Your task to perform on an android device: Go to battery settings Image 0: 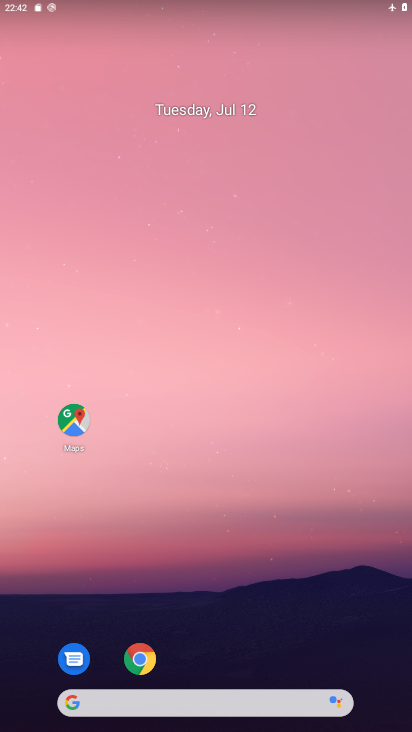
Step 0: drag from (164, 628) to (220, 276)
Your task to perform on an android device: Go to battery settings Image 1: 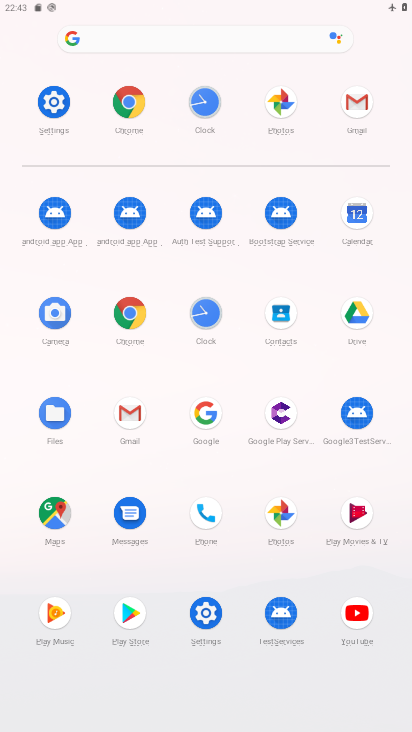
Step 1: click (43, 93)
Your task to perform on an android device: Go to battery settings Image 2: 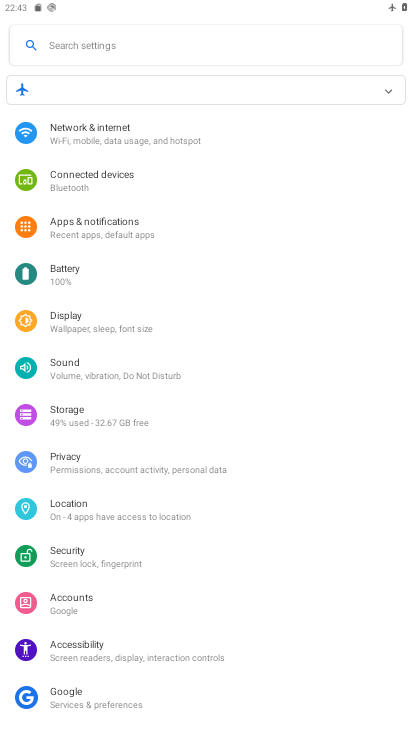
Step 2: click (55, 272)
Your task to perform on an android device: Go to battery settings Image 3: 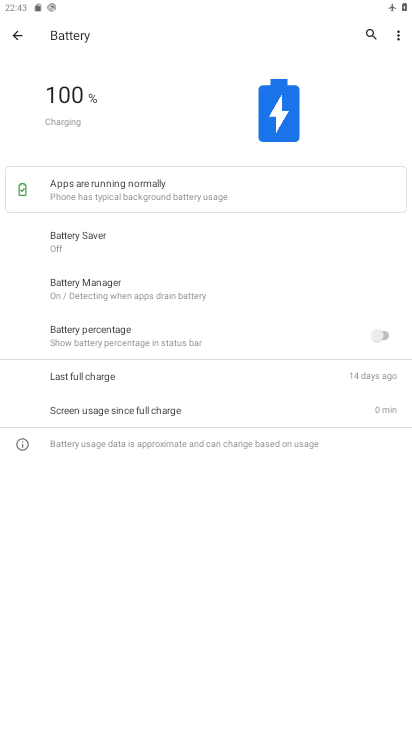
Step 3: task complete